Your task to perform on an android device: check storage Image 0: 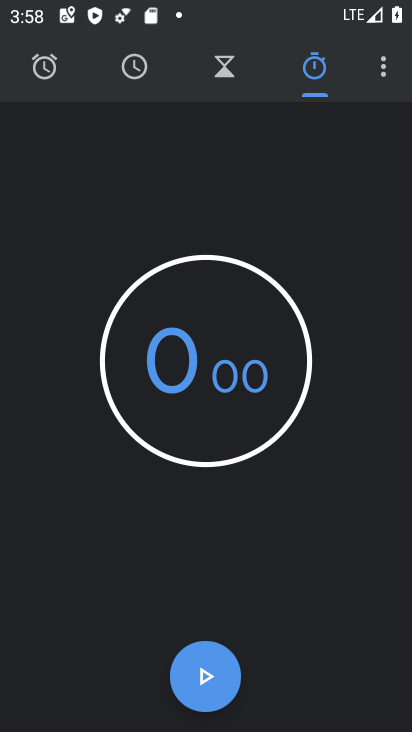
Step 0: press home button
Your task to perform on an android device: check storage Image 1: 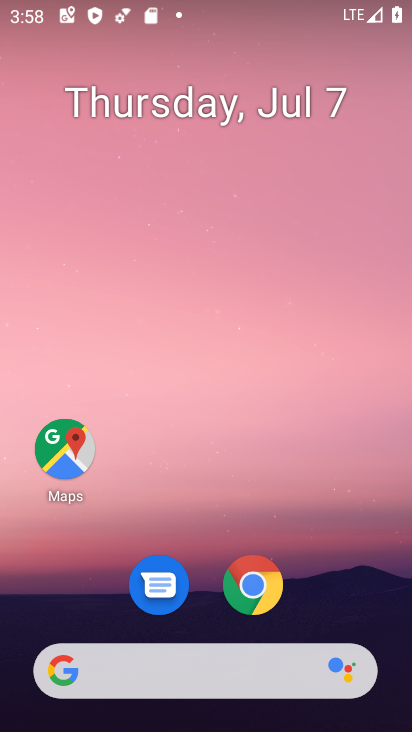
Step 1: drag from (212, 547) to (232, 0)
Your task to perform on an android device: check storage Image 2: 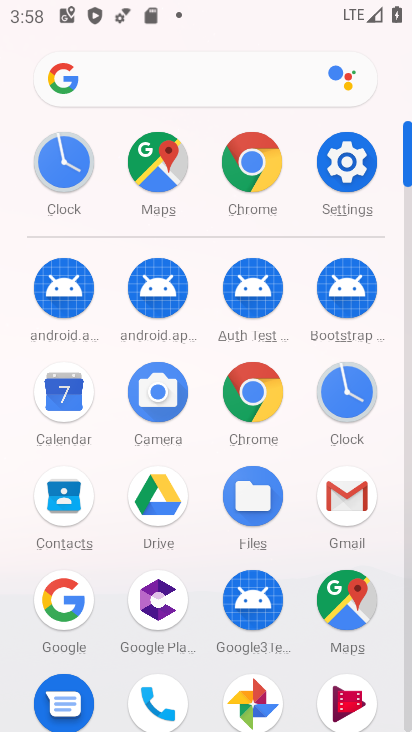
Step 2: click (342, 170)
Your task to perform on an android device: check storage Image 3: 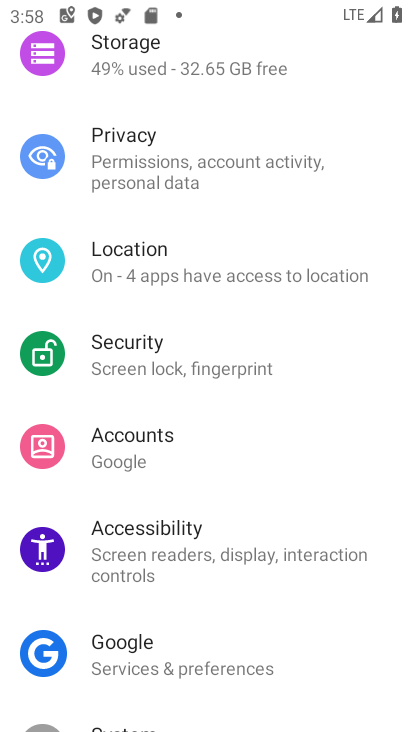
Step 3: click (246, 65)
Your task to perform on an android device: check storage Image 4: 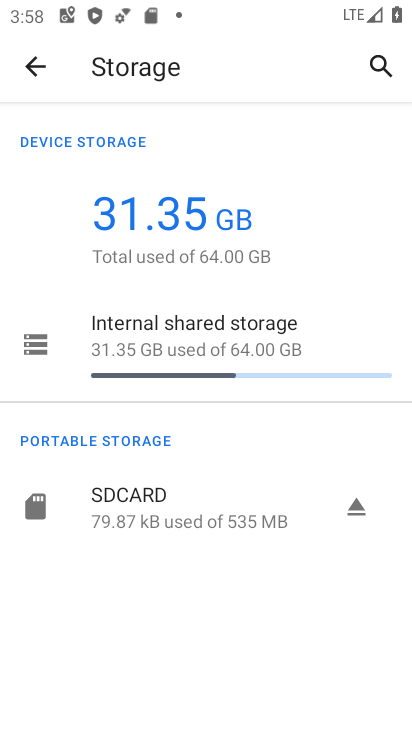
Step 4: task complete